Your task to perform on an android device: change the clock display to digital Image 0: 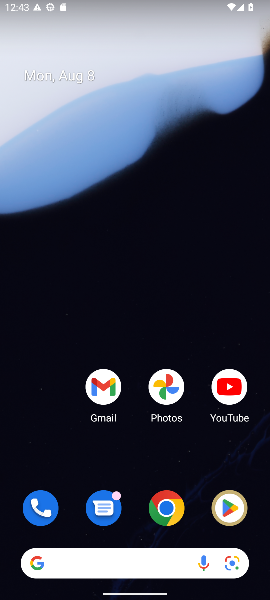
Step 0: drag from (123, 476) to (149, 156)
Your task to perform on an android device: change the clock display to digital Image 1: 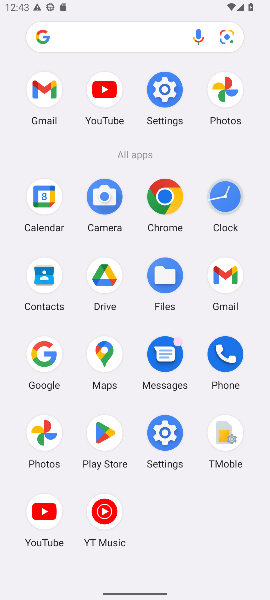
Step 1: click (226, 205)
Your task to perform on an android device: change the clock display to digital Image 2: 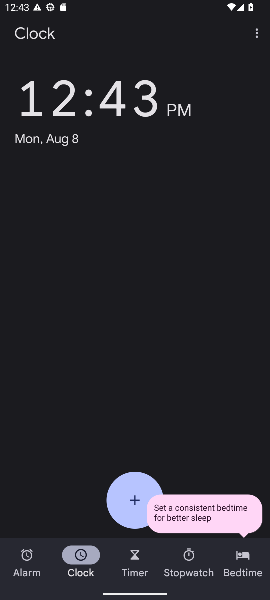
Step 2: click (258, 30)
Your task to perform on an android device: change the clock display to digital Image 3: 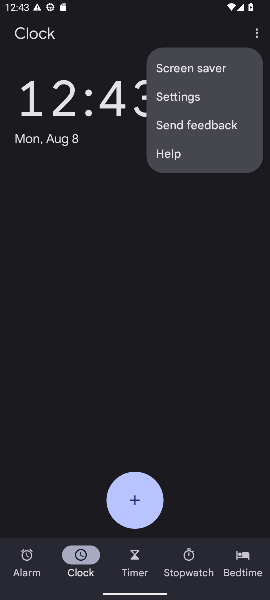
Step 3: click (178, 100)
Your task to perform on an android device: change the clock display to digital Image 4: 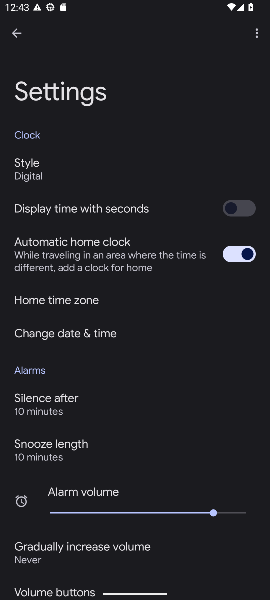
Step 4: task complete